Your task to perform on an android device: Go to settings Image 0: 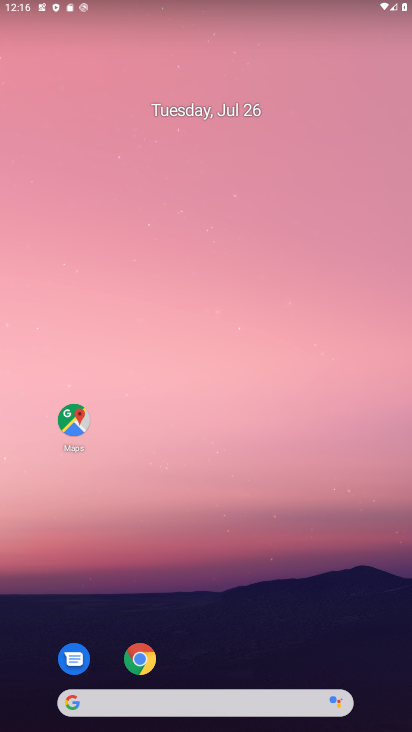
Step 0: drag from (231, 505) to (231, 398)
Your task to perform on an android device: Go to settings Image 1: 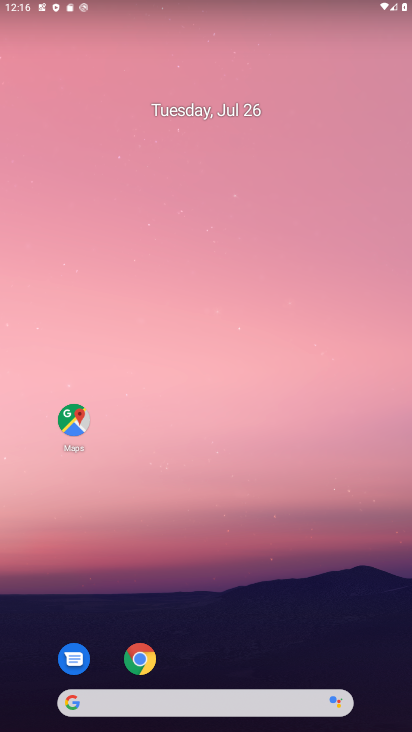
Step 1: drag from (198, 634) to (208, 253)
Your task to perform on an android device: Go to settings Image 2: 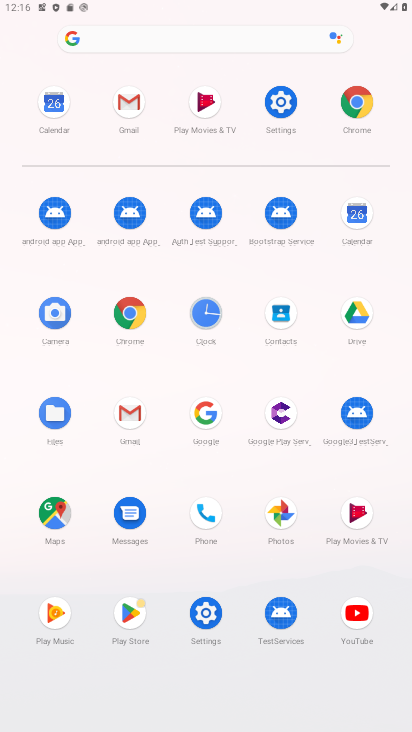
Step 2: click (198, 620)
Your task to perform on an android device: Go to settings Image 3: 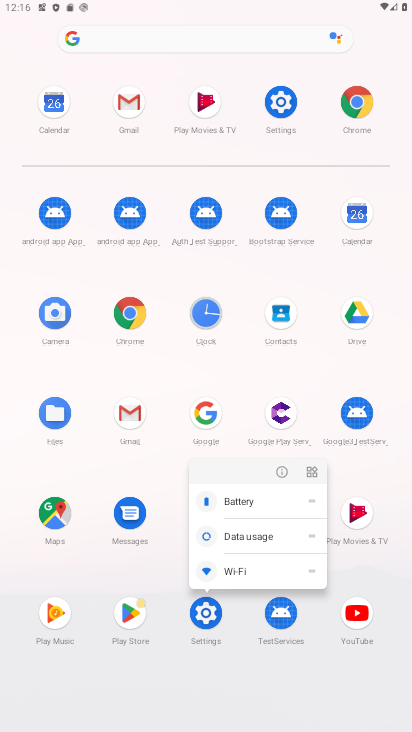
Step 3: click (274, 468)
Your task to perform on an android device: Go to settings Image 4: 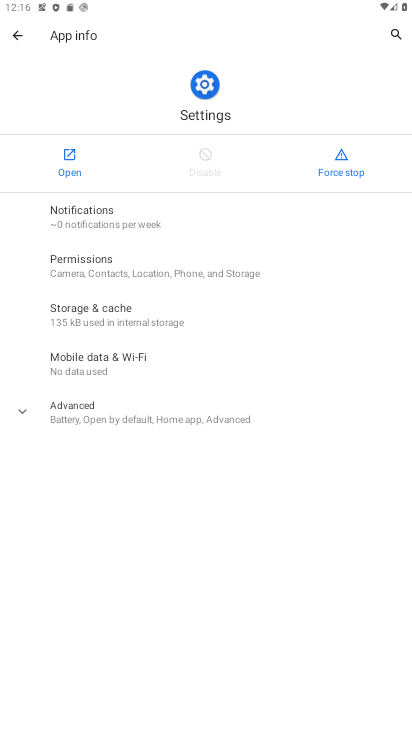
Step 4: click (49, 166)
Your task to perform on an android device: Go to settings Image 5: 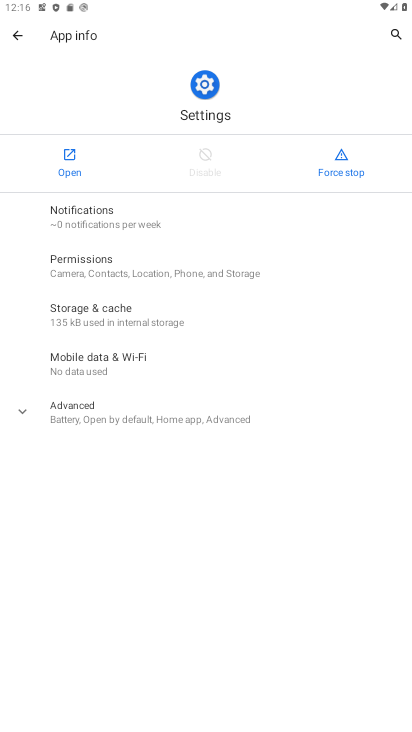
Step 5: click (52, 166)
Your task to perform on an android device: Go to settings Image 6: 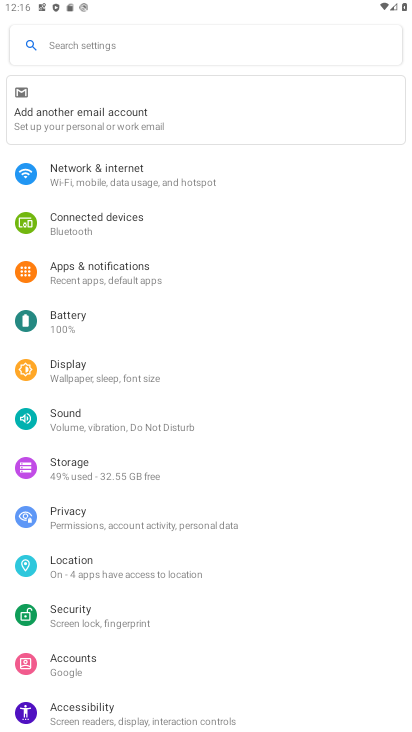
Step 6: task complete